Your task to perform on an android device: Set the phone to "Do not disturb". Image 0: 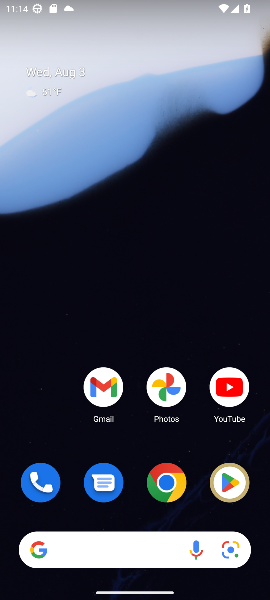
Step 0: drag from (65, 529) to (22, 223)
Your task to perform on an android device: Set the phone to "Do not disturb". Image 1: 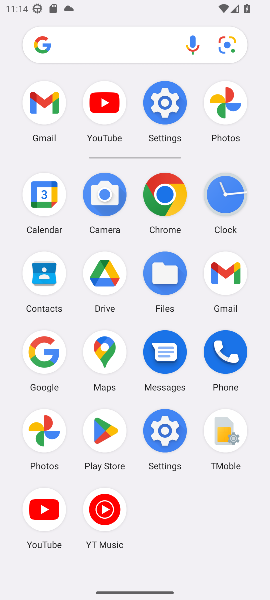
Step 1: click (183, 444)
Your task to perform on an android device: Set the phone to "Do not disturb". Image 2: 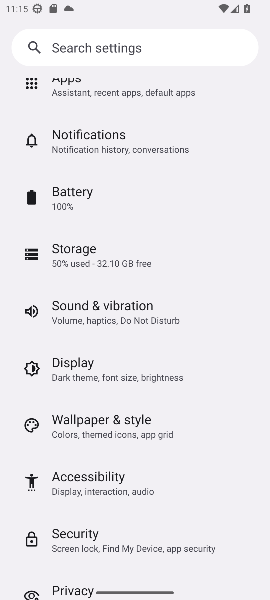
Step 2: task complete